Your task to perform on an android device: Go to Wikipedia Image 0: 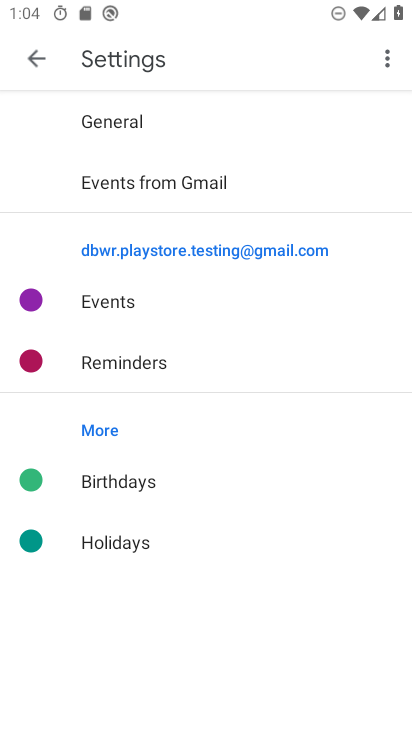
Step 0: press home button
Your task to perform on an android device: Go to Wikipedia Image 1: 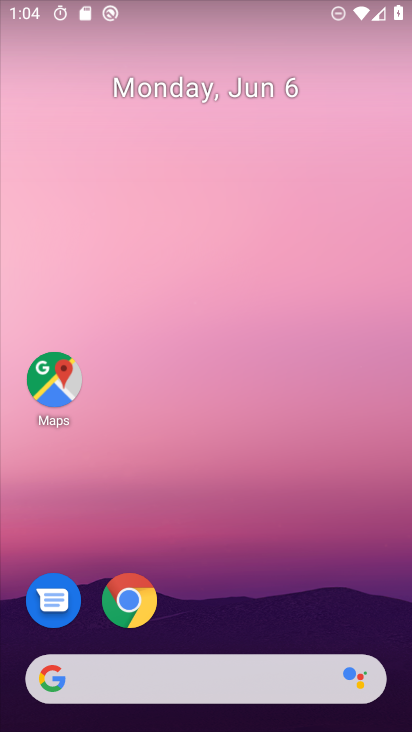
Step 1: click (207, 622)
Your task to perform on an android device: Go to Wikipedia Image 2: 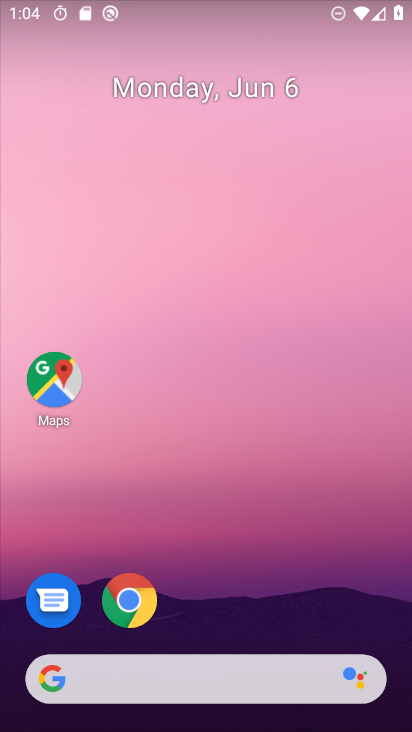
Step 2: click (135, 599)
Your task to perform on an android device: Go to Wikipedia Image 3: 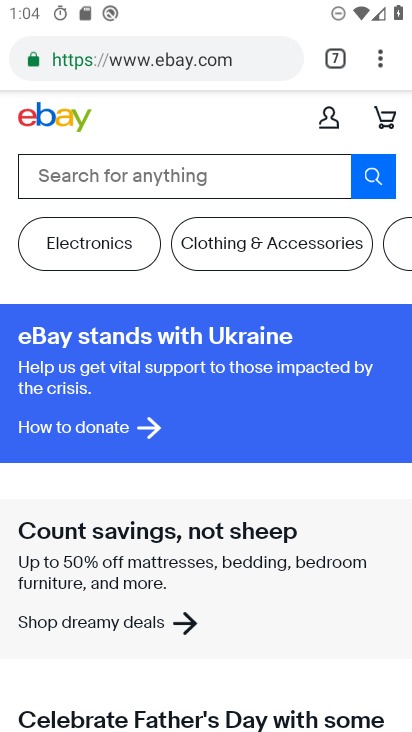
Step 3: click (330, 46)
Your task to perform on an android device: Go to Wikipedia Image 4: 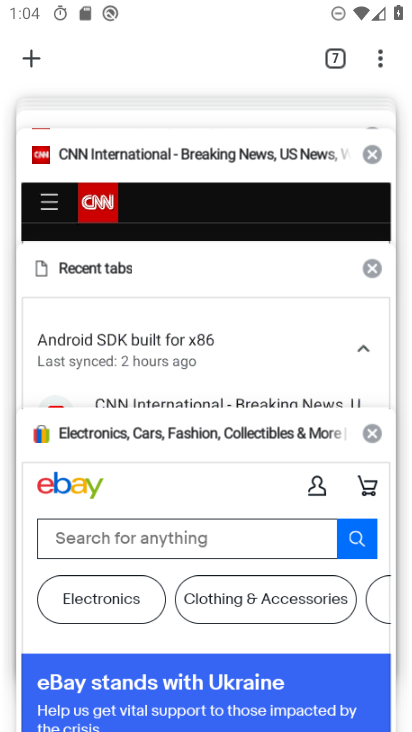
Step 4: click (32, 52)
Your task to perform on an android device: Go to Wikipedia Image 5: 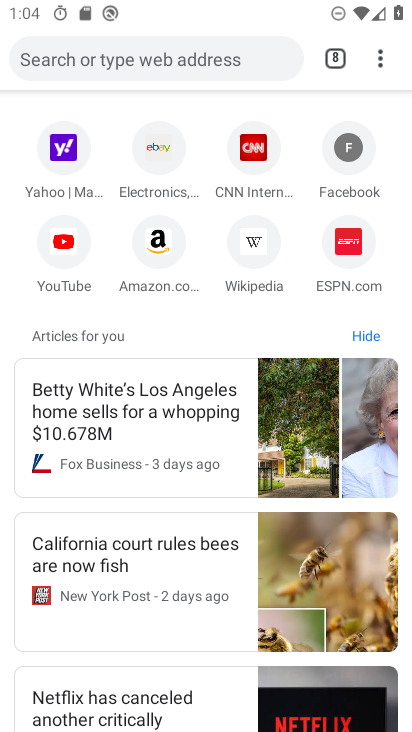
Step 5: click (251, 246)
Your task to perform on an android device: Go to Wikipedia Image 6: 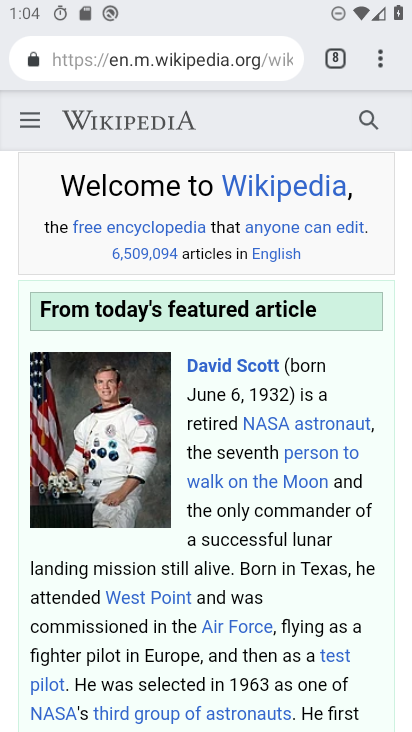
Step 6: task complete